Your task to perform on an android device: See recent photos Image 0: 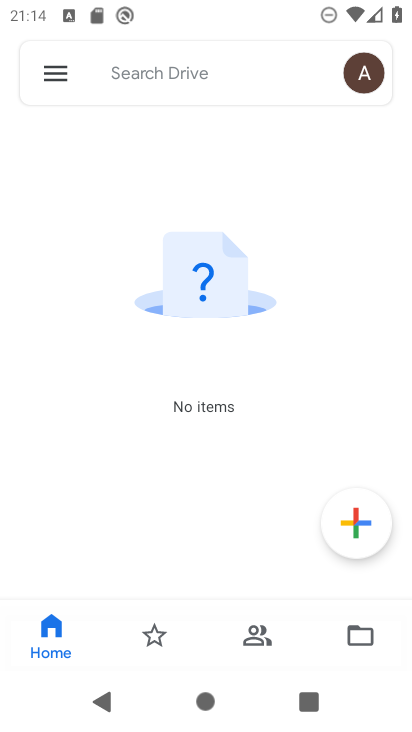
Step 0: press home button
Your task to perform on an android device: See recent photos Image 1: 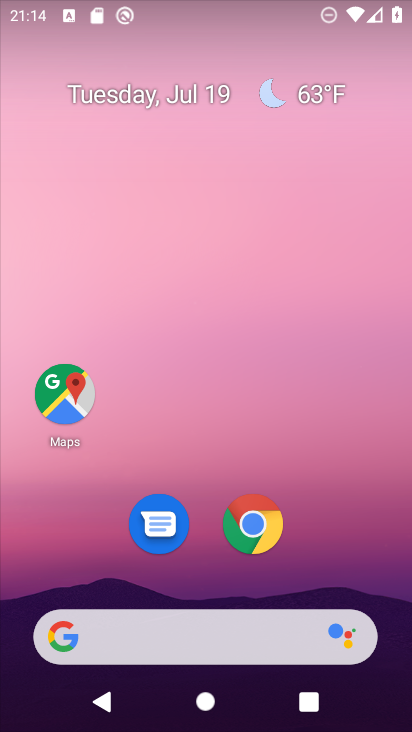
Step 1: drag from (313, 545) to (311, 56)
Your task to perform on an android device: See recent photos Image 2: 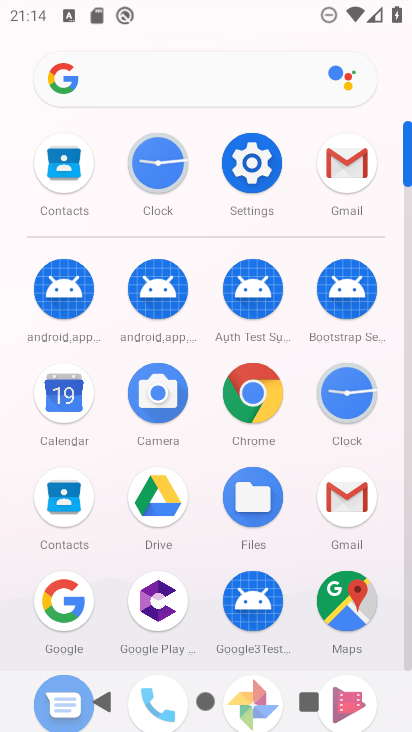
Step 2: drag from (195, 486) to (225, 138)
Your task to perform on an android device: See recent photos Image 3: 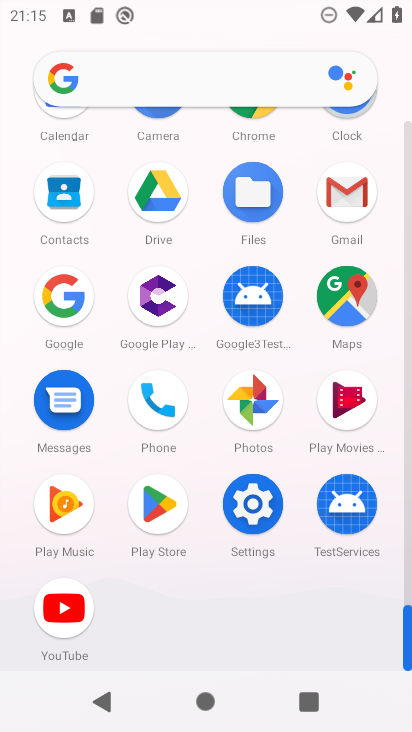
Step 3: click (258, 408)
Your task to perform on an android device: See recent photos Image 4: 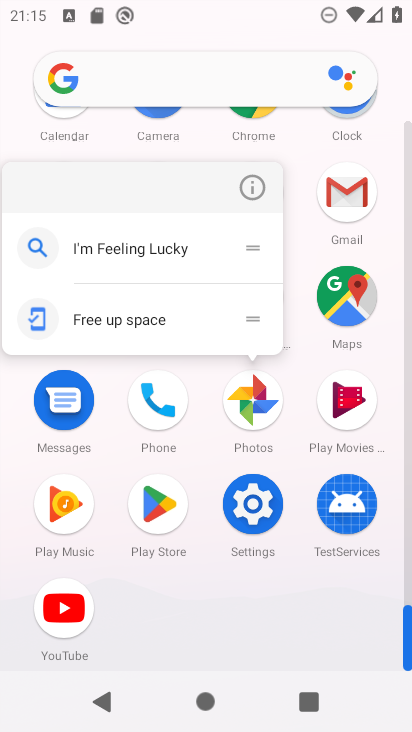
Step 4: click (258, 408)
Your task to perform on an android device: See recent photos Image 5: 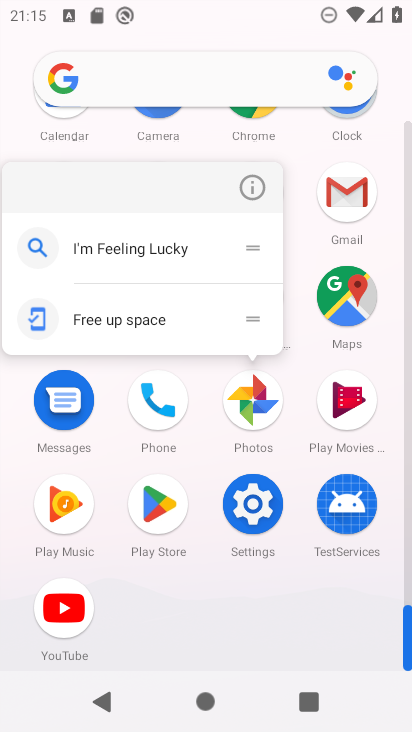
Step 5: click (258, 419)
Your task to perform on an android device: See recent photos Image 6: 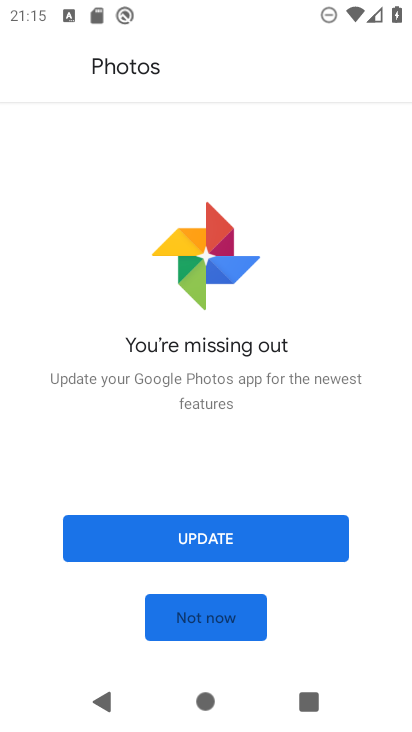
Step 6: click (220, 617)
Your task to perform on an android device: See recent photos Image 7: 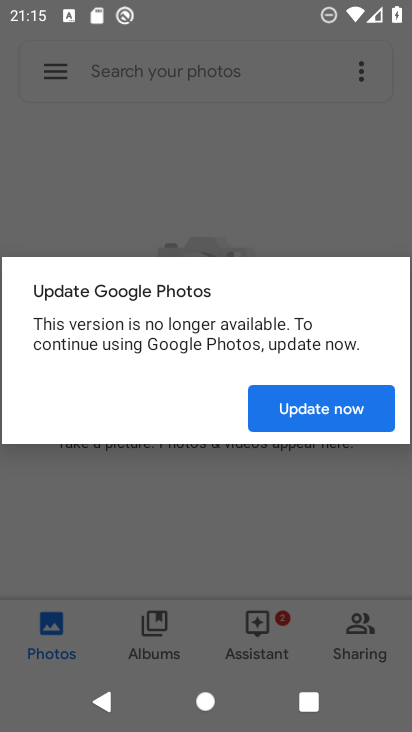
Step 7: click (296, 403)
Your task to perform on an android device: See recent photos Image 8: 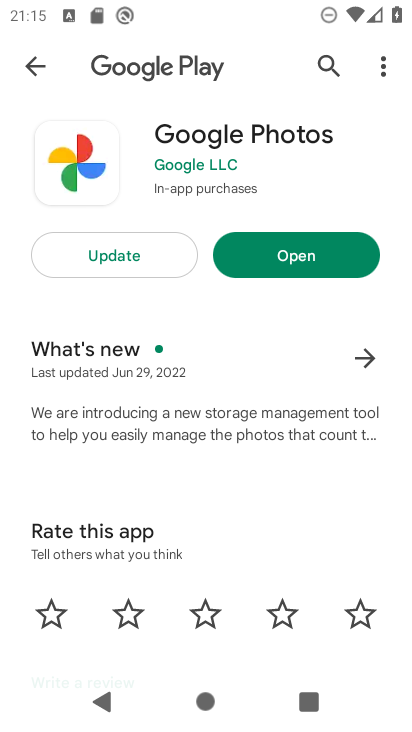
Step 8: click (325, 272)
Your task to perform on an android device: See recent photos Image 9: 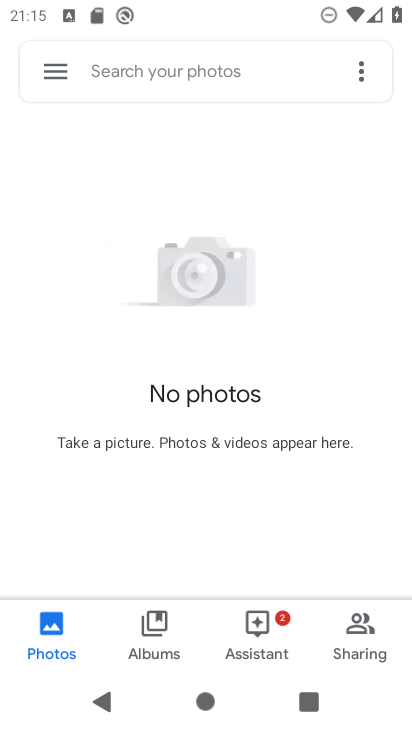
Step 9: task complete